Your task to perform on an android device: turn pop-ups off in chrome Image 0: 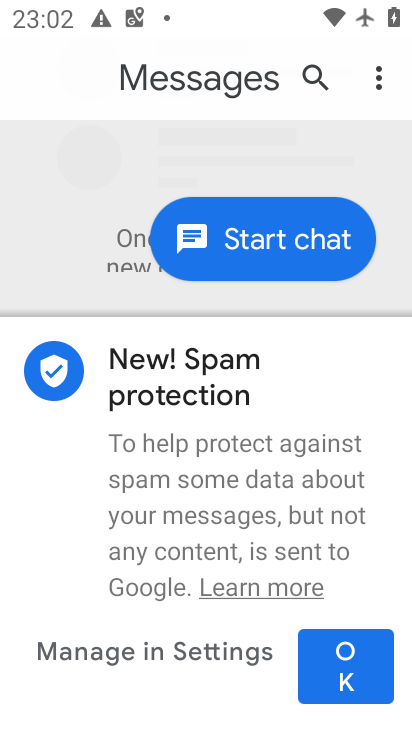
Step 0: press home button
Your task to perform on an android device: turn pop-ups off in chrome Image 1: 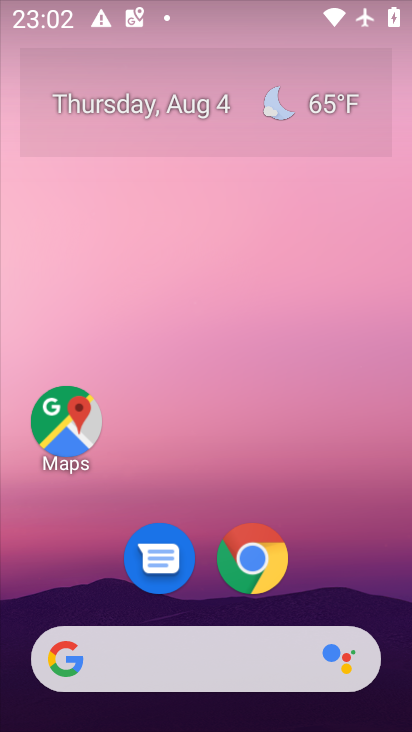
Step 1: drag from (331, 579) to (294, 62)
Your task to perform on an android device: turn pop-ups off in chrome Image 2: 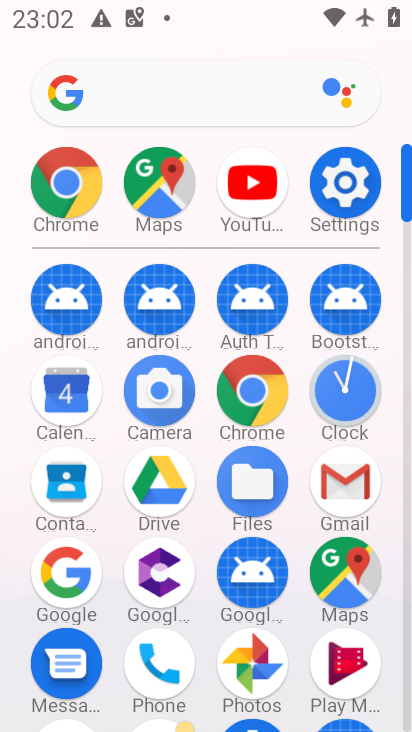
Step 2: click (255, 393)
Your task to perform on an android device: turn pop-ups off in chrome Image 3: 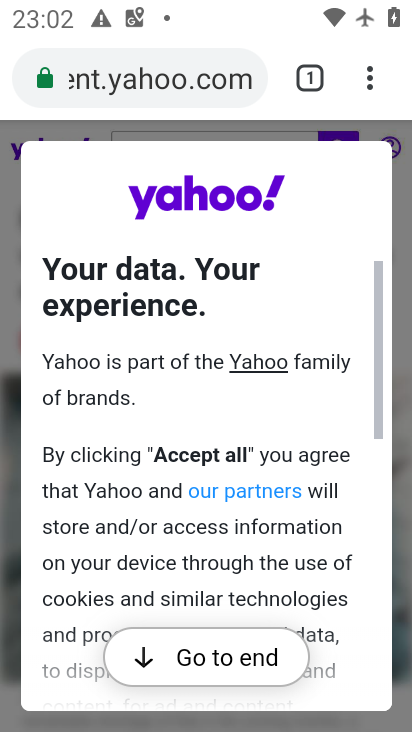
Step 3: drag from (372, 81) to (192, 615)
Your task to perform on an android device: turn pop-ups off in chrome Image 4: 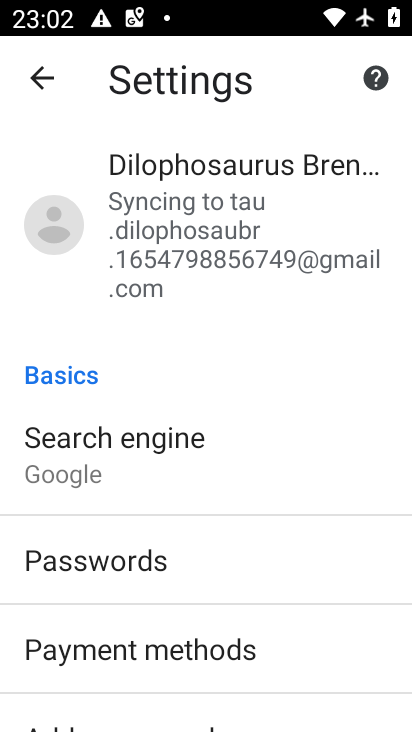
Step 4: drag from (295, 590) to (337, 98)
Your task to perform on an android device: turn pop-ups off in chrome Image 5: 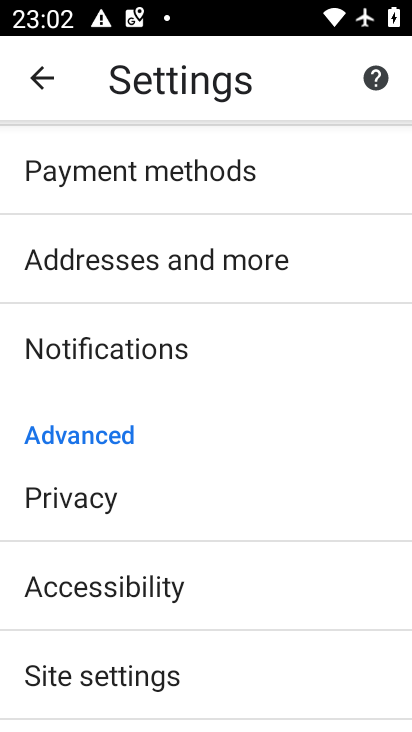
Step 5: drag from (330, 646) to (350, 236)
Your task to perform on an android device: turn pop-ups off in chrome Image 6: 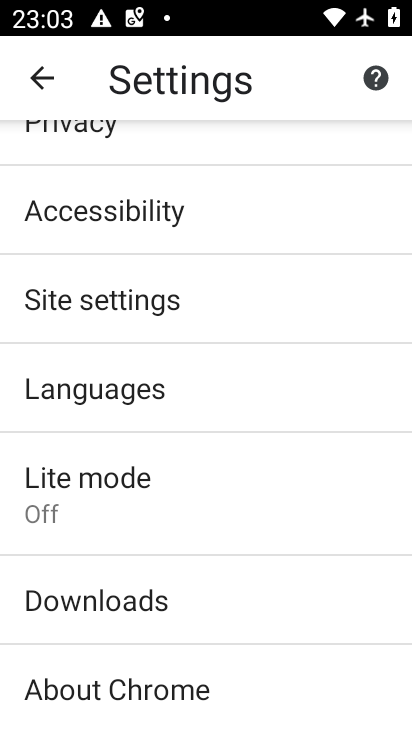
Step 6: click (142, 298)
Your task to perform on an android device: turn pop-ups off in chrome Image 7: 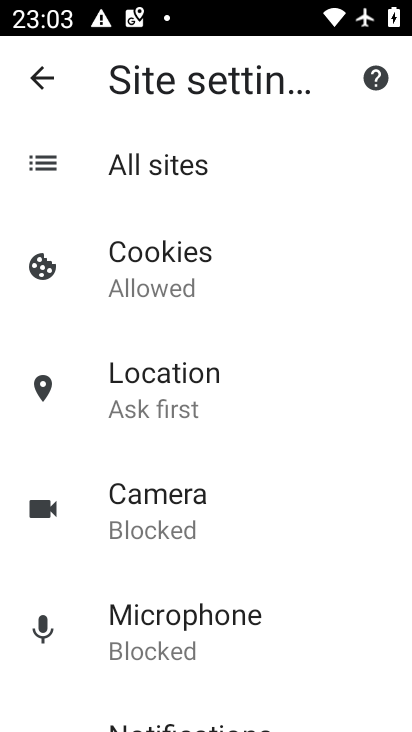
Step 7: drag from (265, 528) to (301, 227)
Your task to perform on an android device: turn pop-ups off in chrome Image 8: 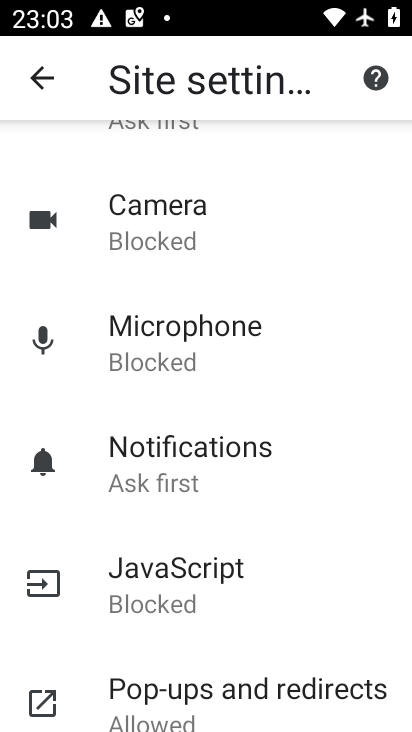
Step 8: click (207, 717)
Your task to perform on an android device: turn pop-ups off in chrome Image 9: 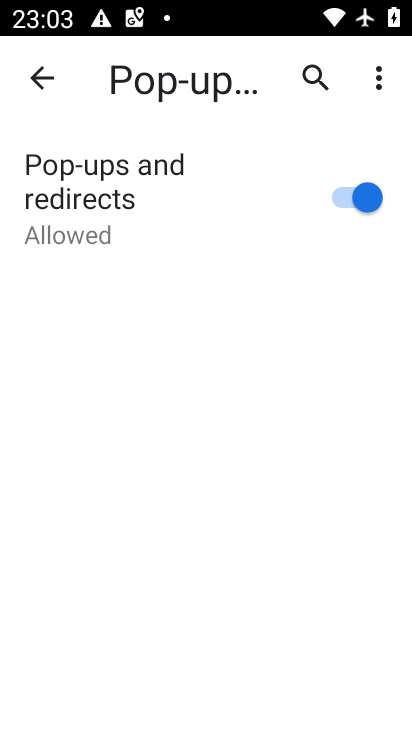
Step 9: click (344, 210)
Your task to perform on an android device: turn pop-ups off in chrome Image 10: 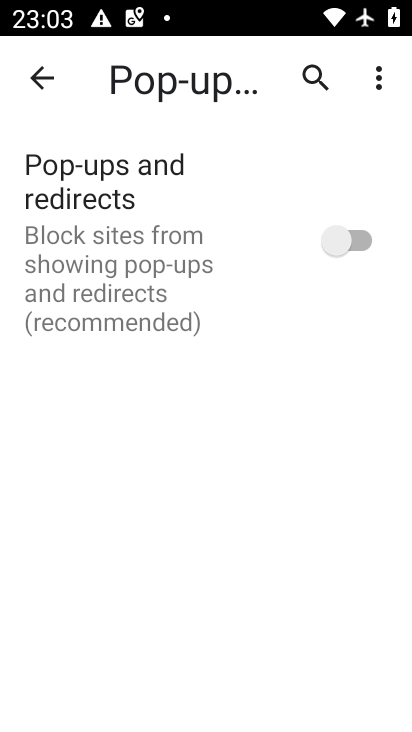
Step 10: task complete